Your task to perform on an android device: Open Google Maps and go to "Timeline" Image 0: 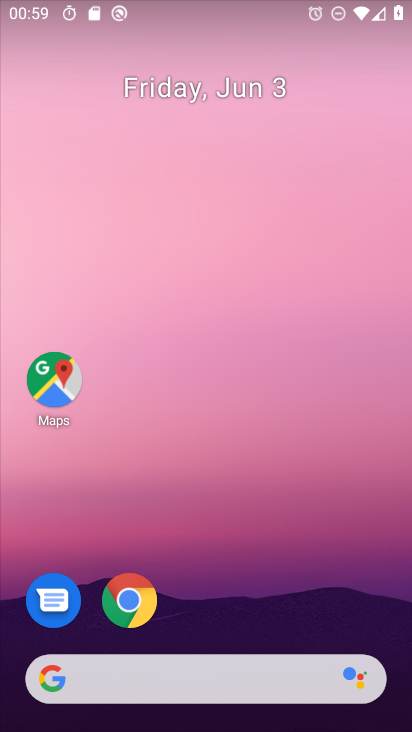
Step 0: drag from (217, 617) to (195, 27)
Your task to perform on an android device: Open Google Maps and go to "Timeline" Image 1: 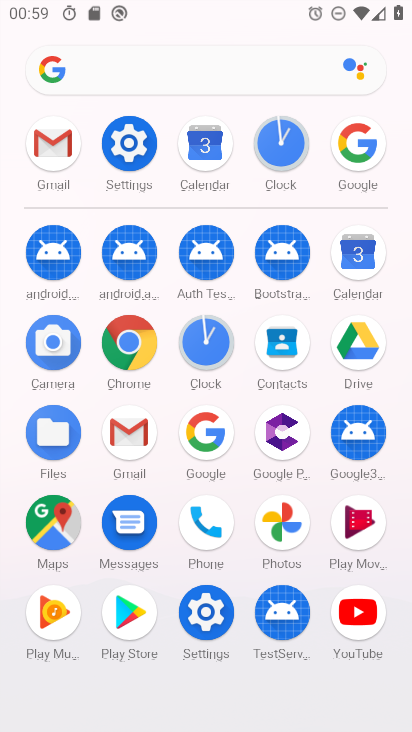
Step 1: click (59, 527)
Your task to perform on an android device: Open Google Maps and go to "Timeline" Image 2: 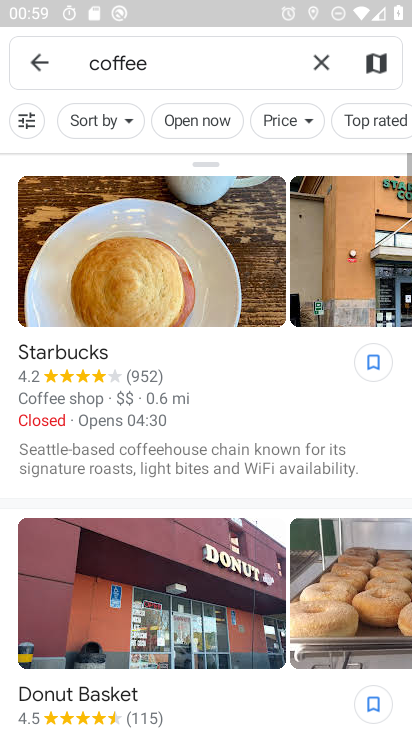
Step 2: click (315, 62)
Your task to perform on an android device: Open Google Maps and go to "Timeline" Image 3: 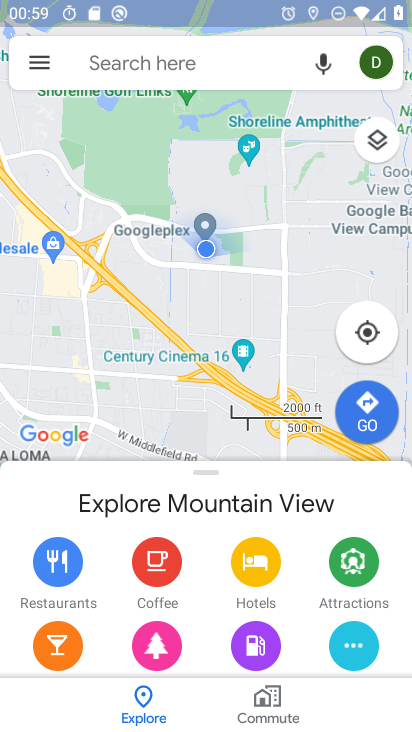
Step 3: click (39, 62)
Your task to perform on an android device: Open Google Maps and go to "Timeline" Image 4: 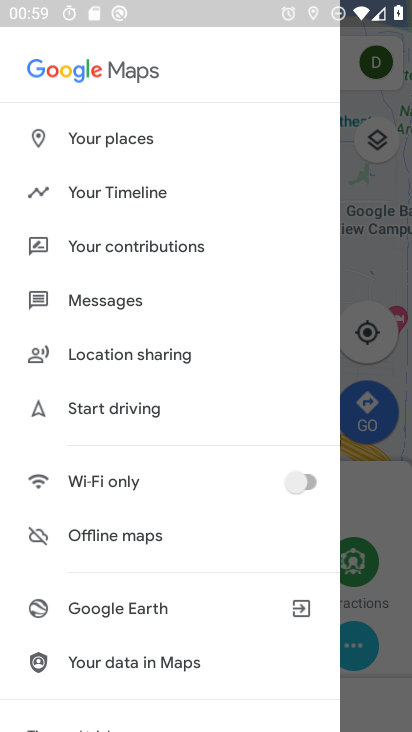
Step 4: click (129, 194)
Your task to perform on an android device: Open Google Maps and go to "Timeline" Image 5: 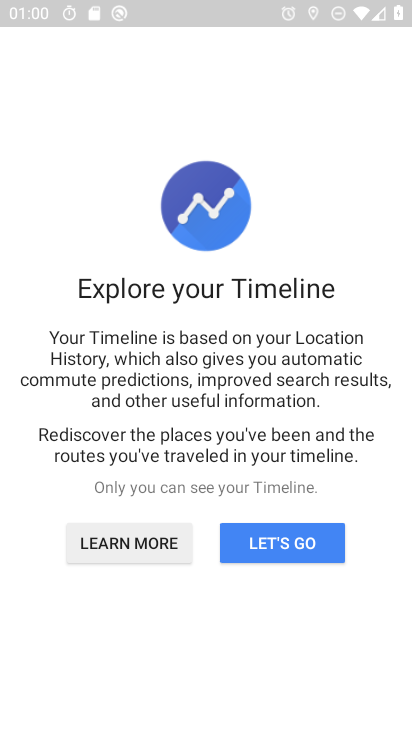
Step 5: drag from (215, 638) to (196, 250)
Your task to perform on an android device: Open Google Maps and go to "Timeline" Image 6: 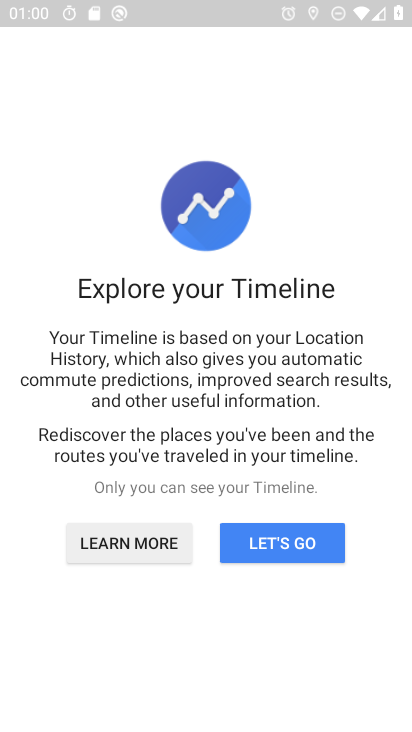
Step 6: drag from (196, 618) to (222, 335)
Your task to perform on an android device: Open Google Maps and go to "Timeline" Image 7: 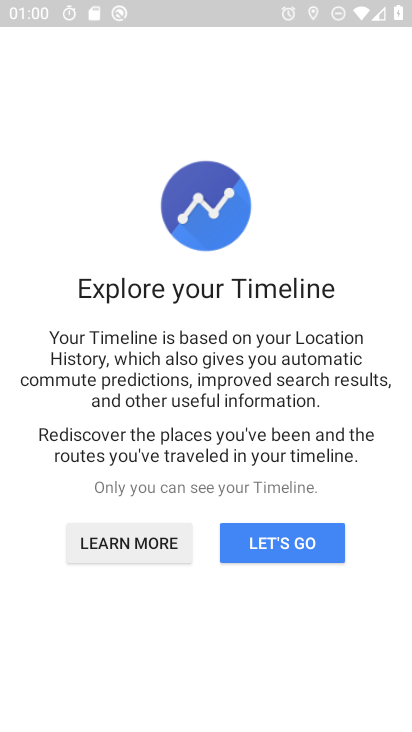
Step 7: click (289, 521)
Your task to perform on an android device: Open Google Maps and go to "Timeline" Image 8: 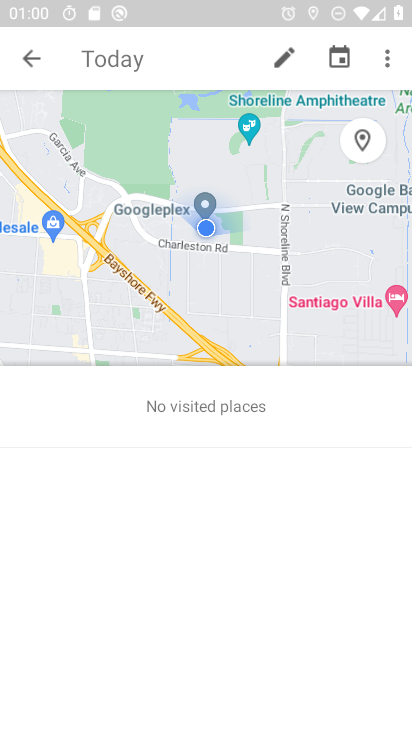
Step 8: task complete